Your task to perform on an android device: Open Chrome and go to settings Image 0: 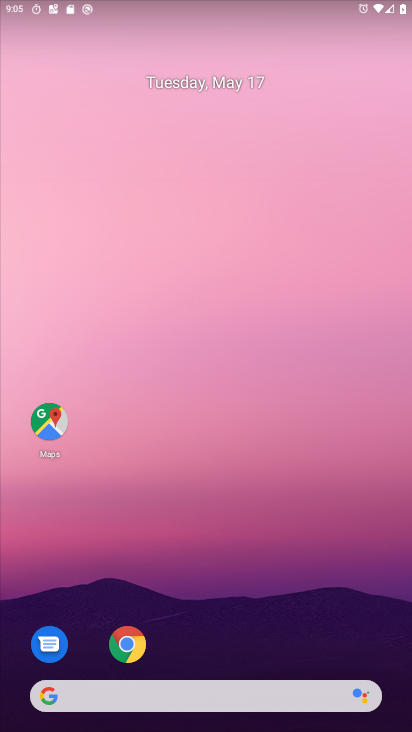
Step 0: press home button
Your task to perform on an android device: Open Chrome and go to settings Image 1: 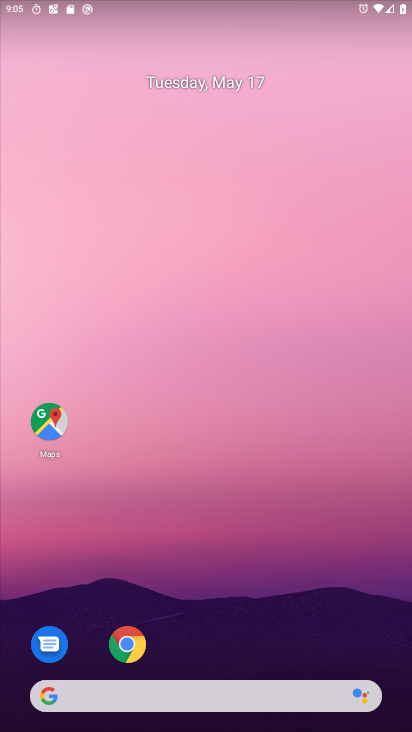
Step 1: click (125, 640)
Your task to perform on an android device: Open Chrome and go to settings Image 2: 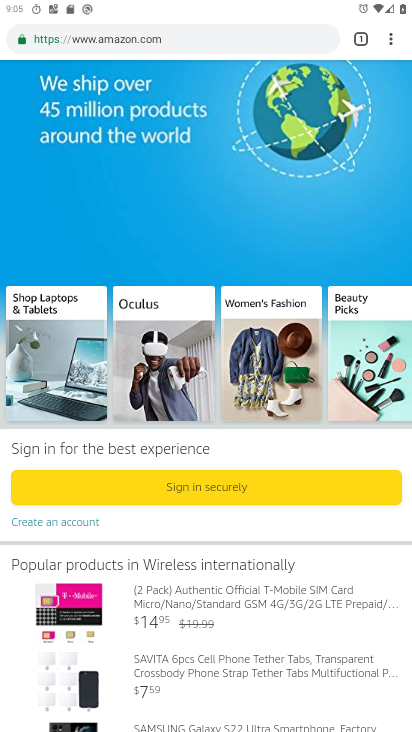
Step 2: click (390, 34)
Your task to perform on an android device: Open Chrome and go to settings Image 3: 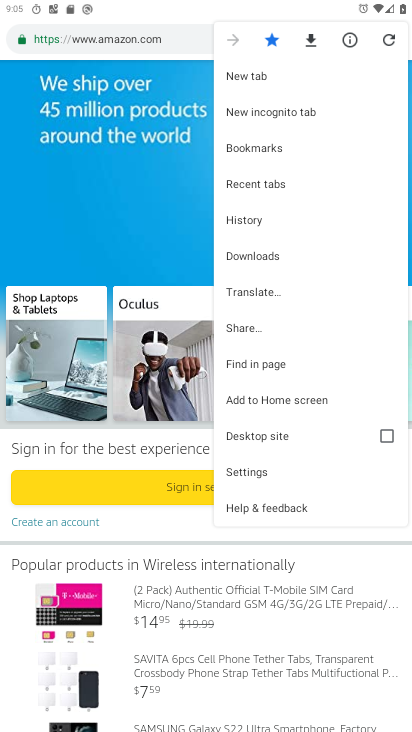
Step 3: click (275, 470)
Your task to perform on an android device: Open Chrome and go to settings Image 4: 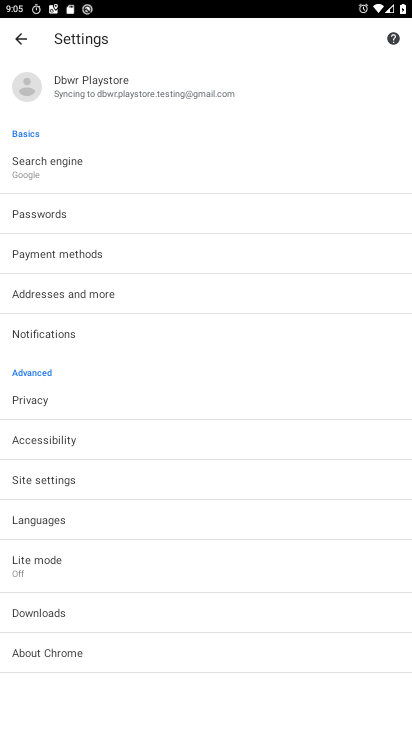
Step 4: task complete